Your task to perform on an android device: toggle sleep mode Image 0: 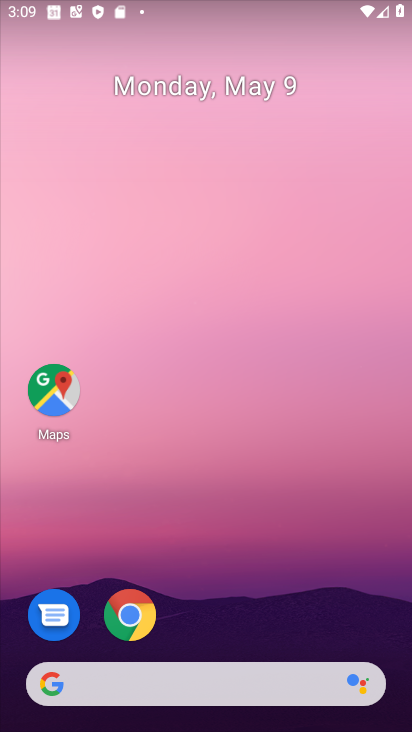
Step 0: drag from (241, 627) to (222, 282)
Your task to perform on an android device: toggle sleep mode Image 1: 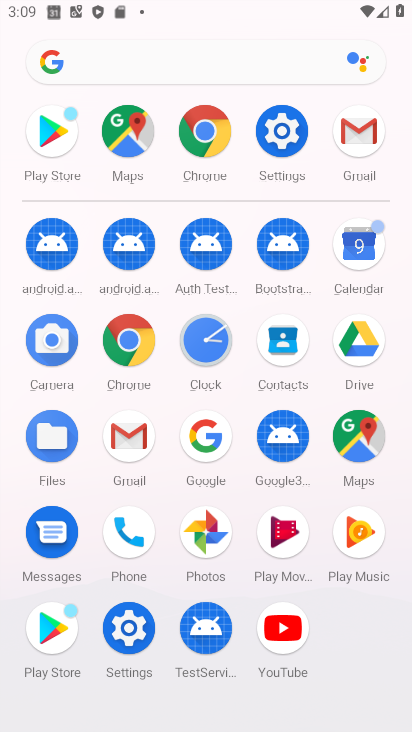
Step 1: click (274, 118)
Your task to perform on an android device: toggle sleep mode Image 2: 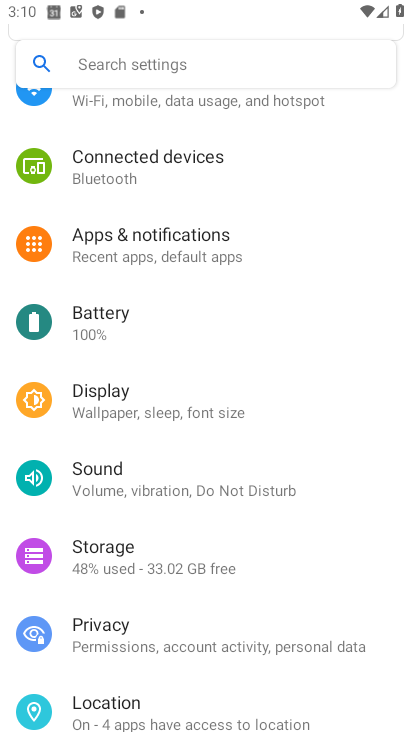
Step 2: task complete